Your task to perform on an android device: manage bookmarks in the chrome app Image 0: 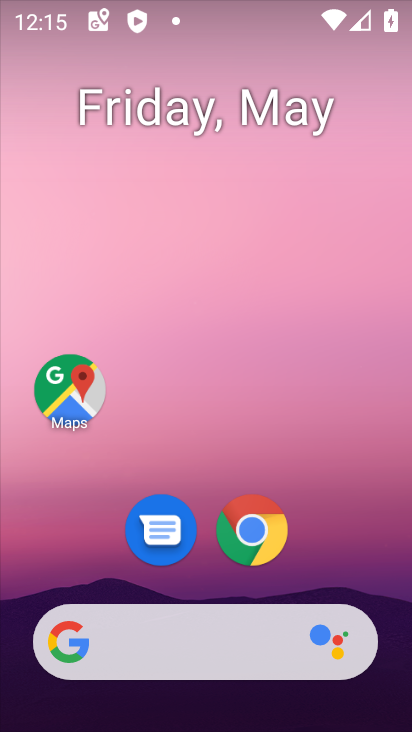
Step 0: click (252, 529)
Your task to perform on an android device: manage bookmarks in the chrome app Image 1: 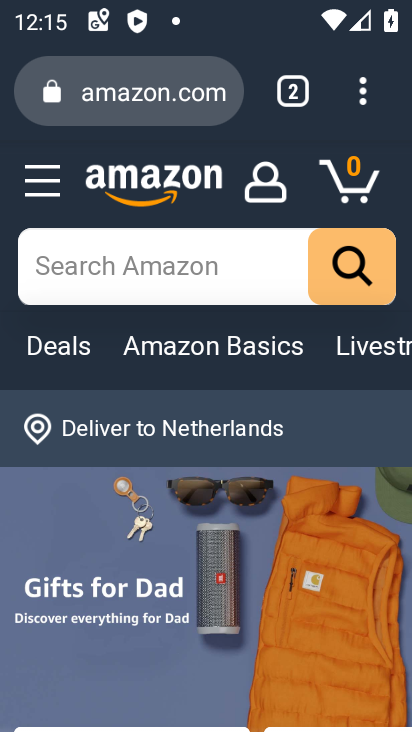
Step 1: click (364, 93)
Your task to perform on an android device: manage bookmarks in the chrome app Image 2: 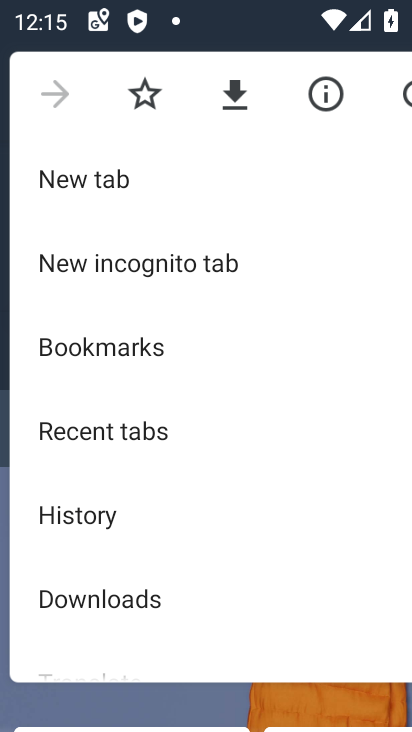
Step 2: click (150, 349)
Your task to perform on an android device: manage bookmarks in the chrome app Image 3: 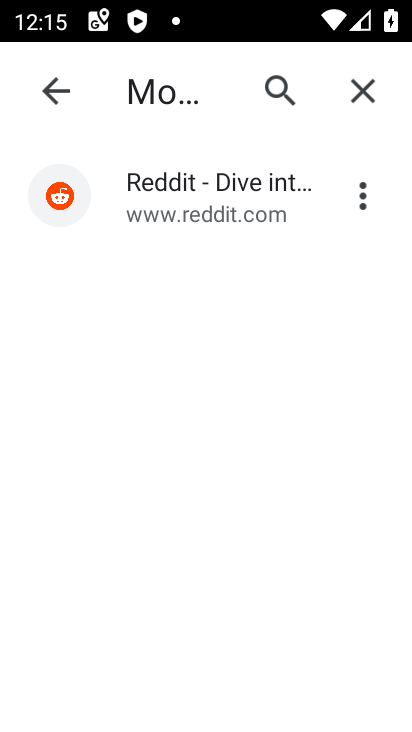
Step 3: click (362, 202)
Your task to perform on an android device: manage bookmarks in the chrome app Image 4: 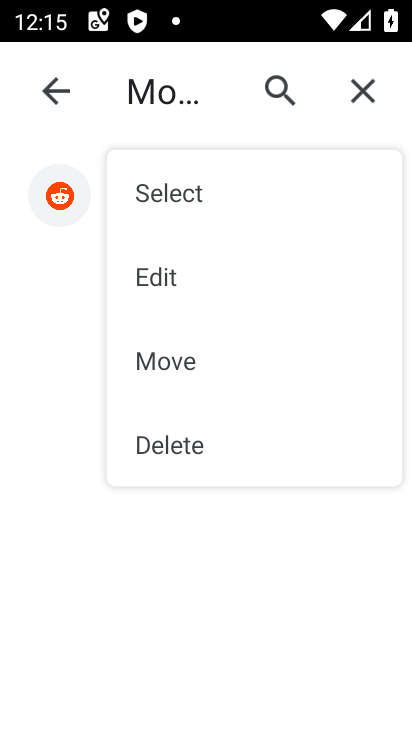
Step 4: click (173, 293)
Your task to perform on an android device: manage bookmarks in the chrome app Image 5: 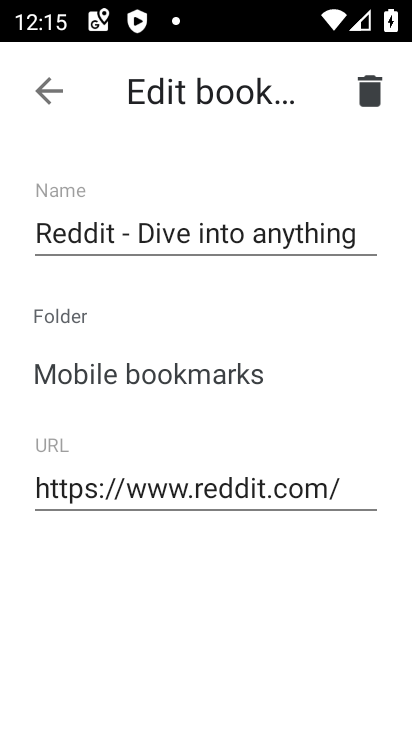
Step 5: click (260, 368)
Your task to perform on an android device: manage bookmarks in the chrome app Image 6: 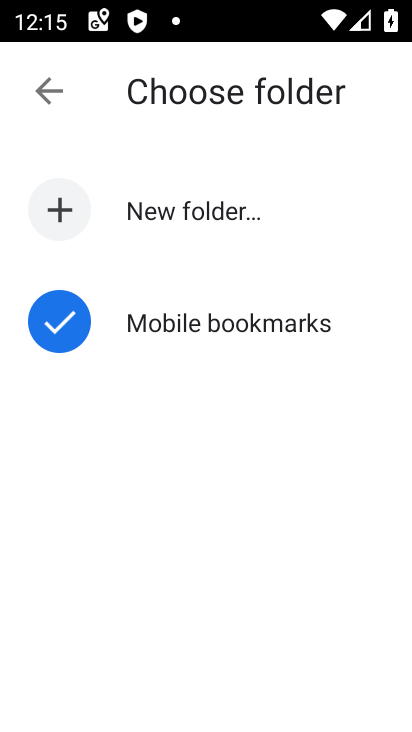
Step 6: click (261, 329)
Your task to perform on an android device: manage bookmarks in the chrome app Image 7: 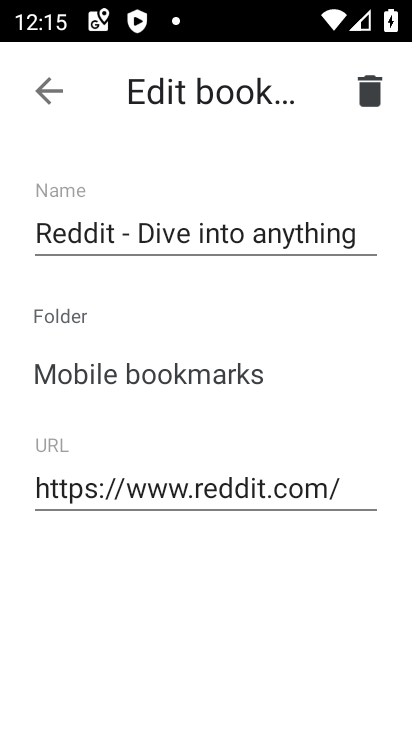
Step 7: task complete